Your task to perform on an android device: Open settings on Google Maps Image 0: 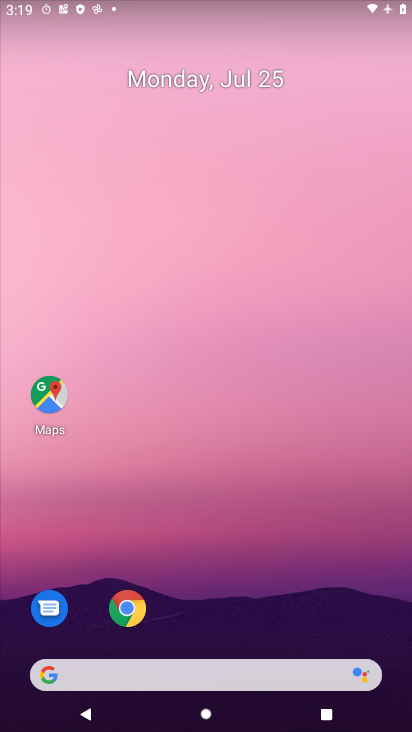
Step 0: drag from (226, 704) to (258, 180)
Your task to perform on an android device: Open settings on Google Maps Image 1: 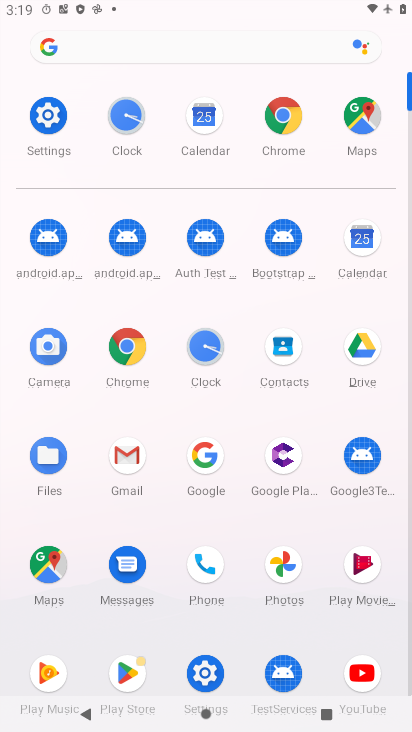
Step 1: click (370, 128)
Your task to perform on an android device: Open settings on Google Maps Image 2: 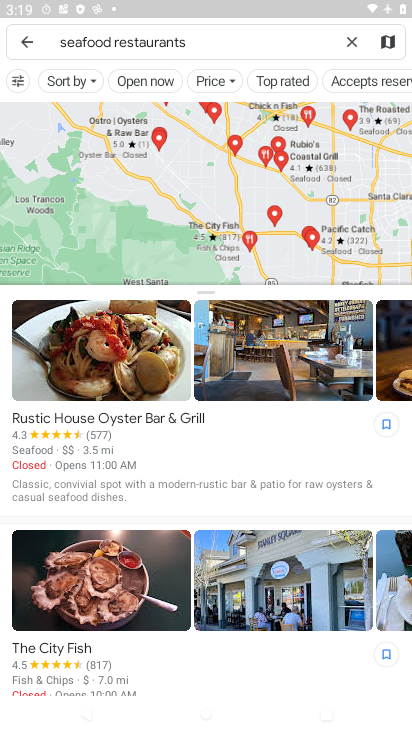
Step 2: click (21, 46)
Your task to perform on an android device: Open settings on Google Maps Image 3: 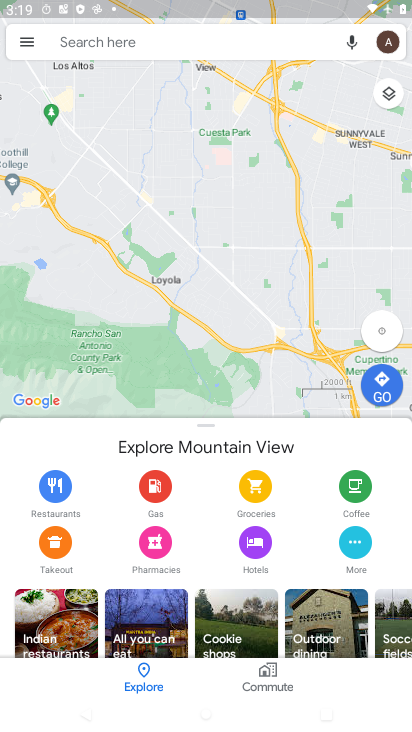
Step 3: click (27, 45)
Your task to perform on an android device: Open settings on Google Maps Image 4: 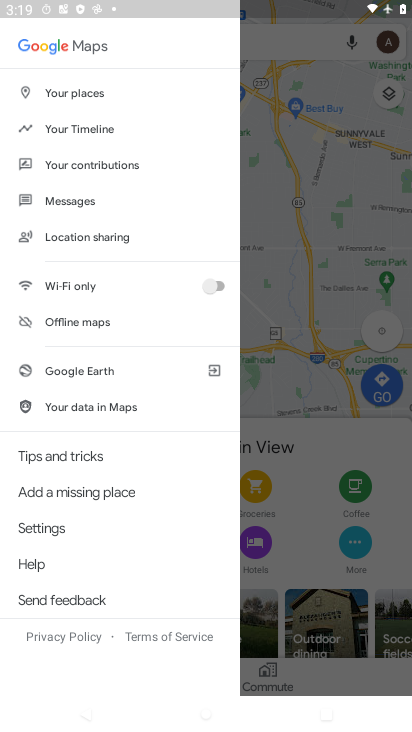
Step 4: click (42, 525)
Your task to perform on an android device: Open settings on Google Maps Image 5: 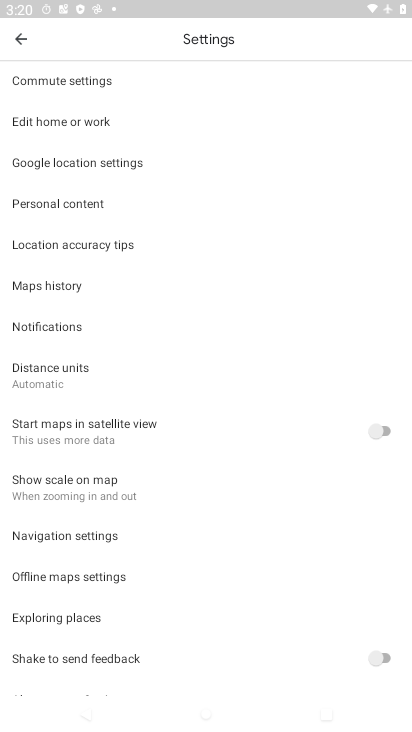
Step 5: task complete